Your task to perform on an android device: open app "Instagram" (install if not already installed) and go to login screen Image 0: 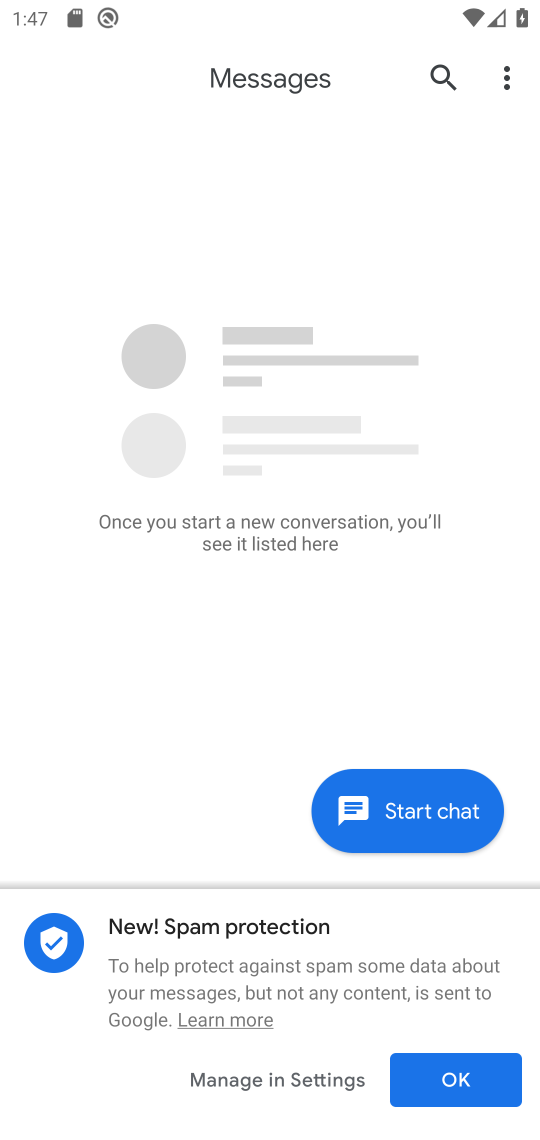
Step 0: press home button
Your task to perform on an android device: open app "Instagram" (install if not already installed) and go to login screen Image 1: 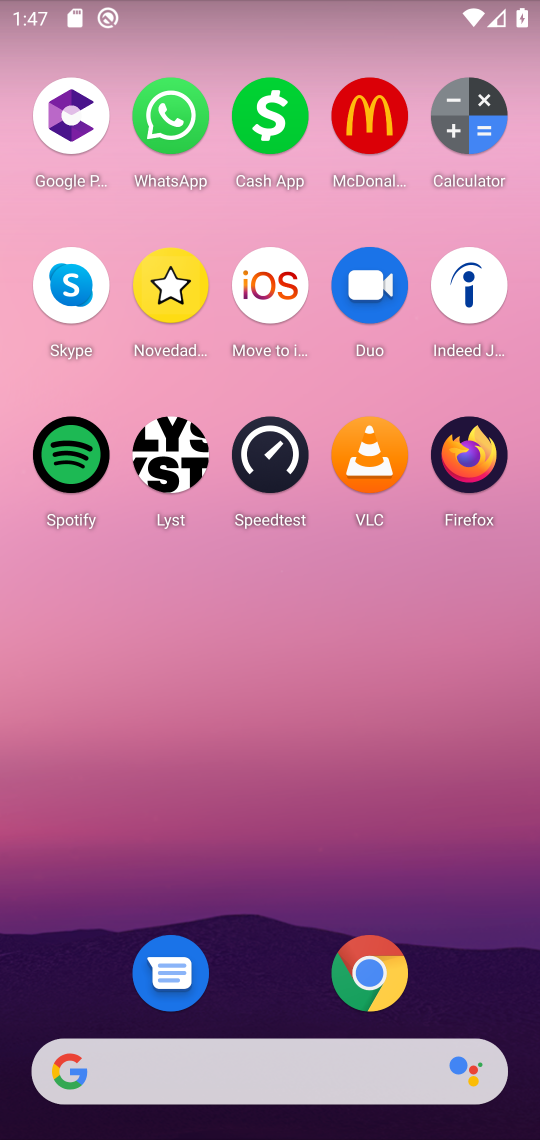
Step 1: drag from (298, 999) to (374, 186)
Your task to perform on an android device: open app "Instagram" (install if not already installed) and go to login screen Image 2: 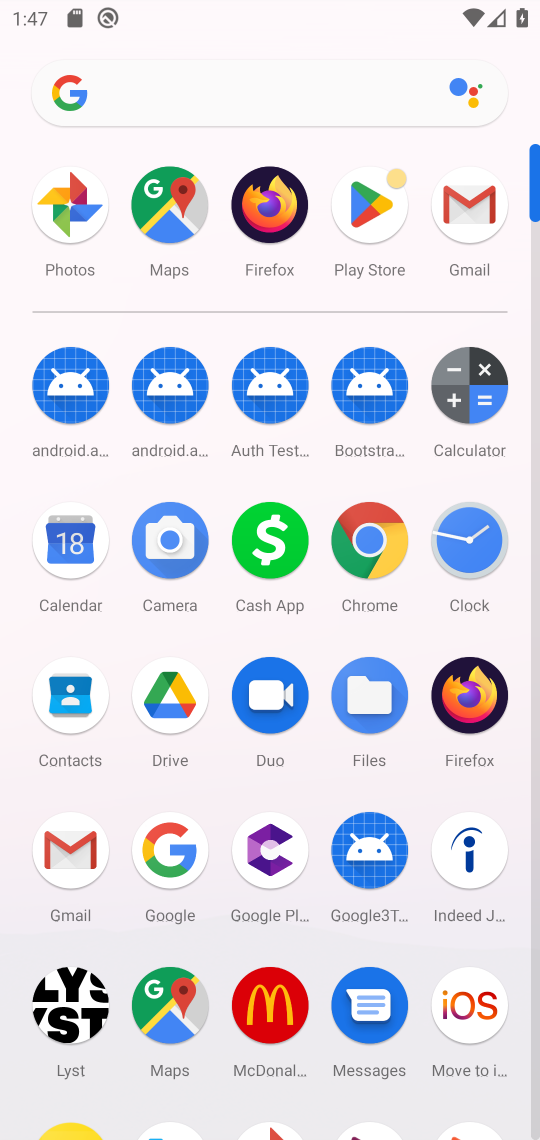
Step 2: click (371, 227)
Your task to perform on an android device: open app "Instagram" (install if not already installed) and go to login screen Image 3: 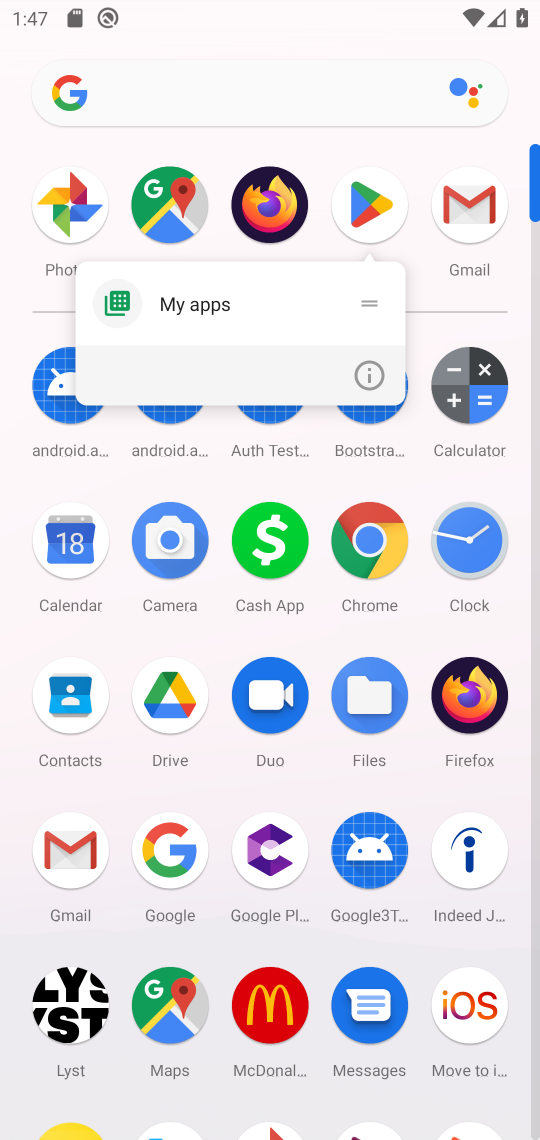
Step 3: click (363, 216)
Your task to perform on an android device: open app "Instagram" (install if not already installed) and go to login screen Image 4: 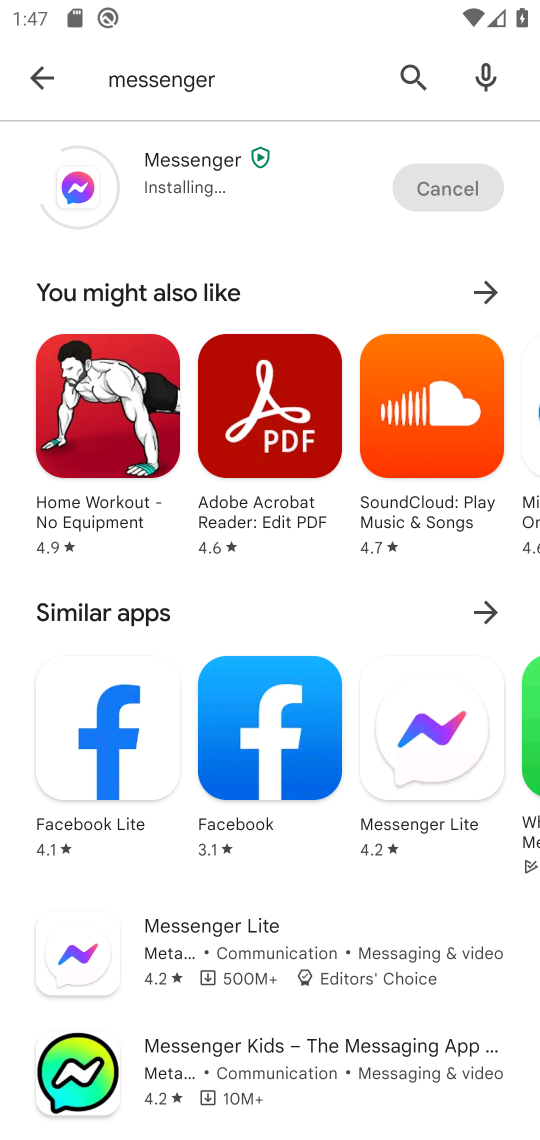
Step 4: click (407, 84)
Your task to perform on an android device: open app "Instagram" (install if not already installed) and go to login screen Image 5: 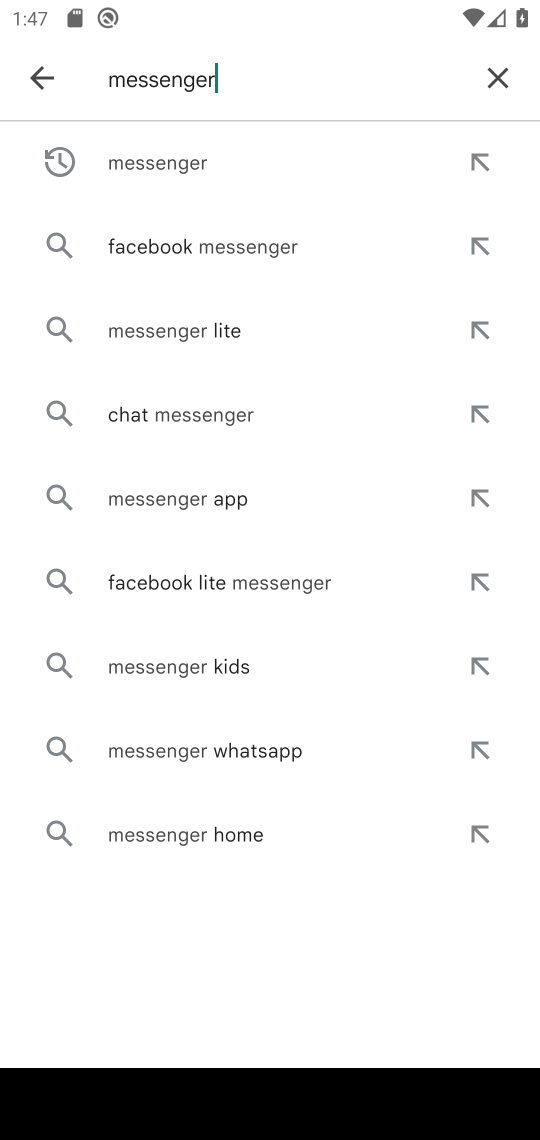
Step 5: click (487, 84)
Your task to perform on an android device: open app "Instagram" (install if not already installed) and go to login screen Image 6: 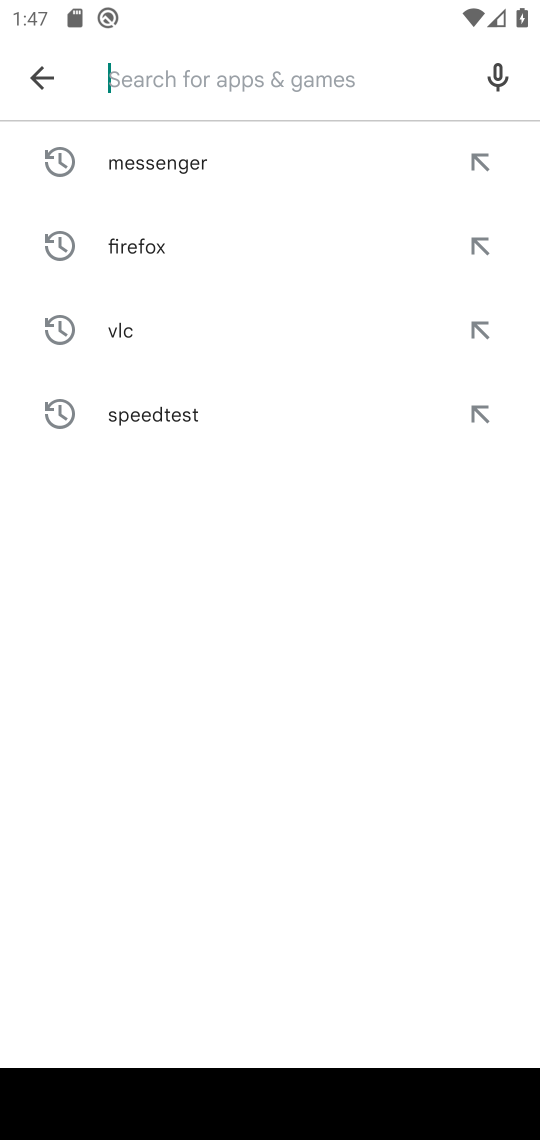
Step 6: type "instagram"
Your task to perform on an android device: open app "Instagram" (install if not already installed) and go to login screen Image 7: 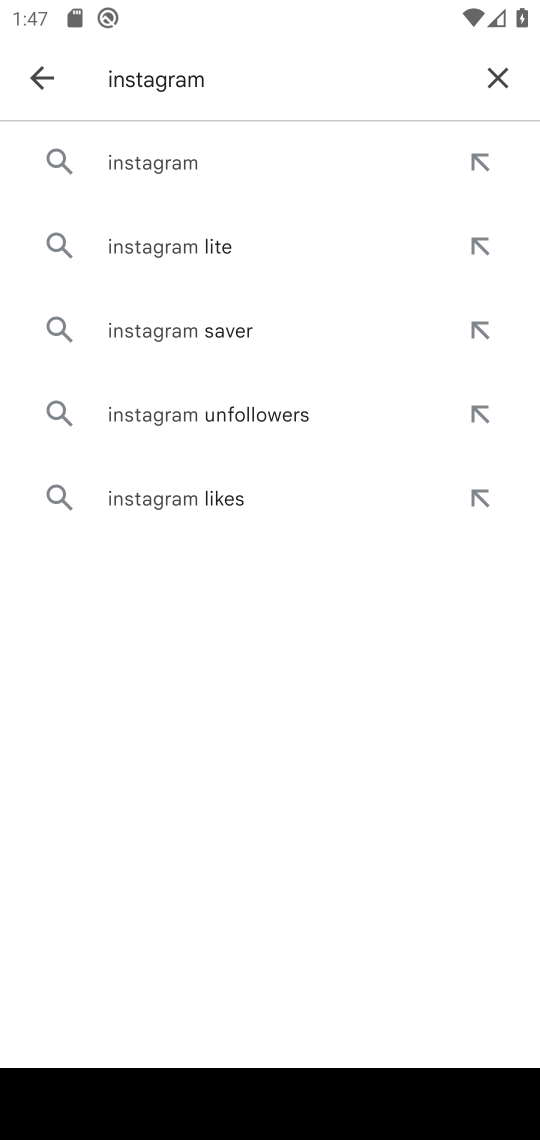
Step 7: click (271, 168)
Your task to perform on an android device: open app "Instagram" (install if not already installed) and go to login screen Image 8: 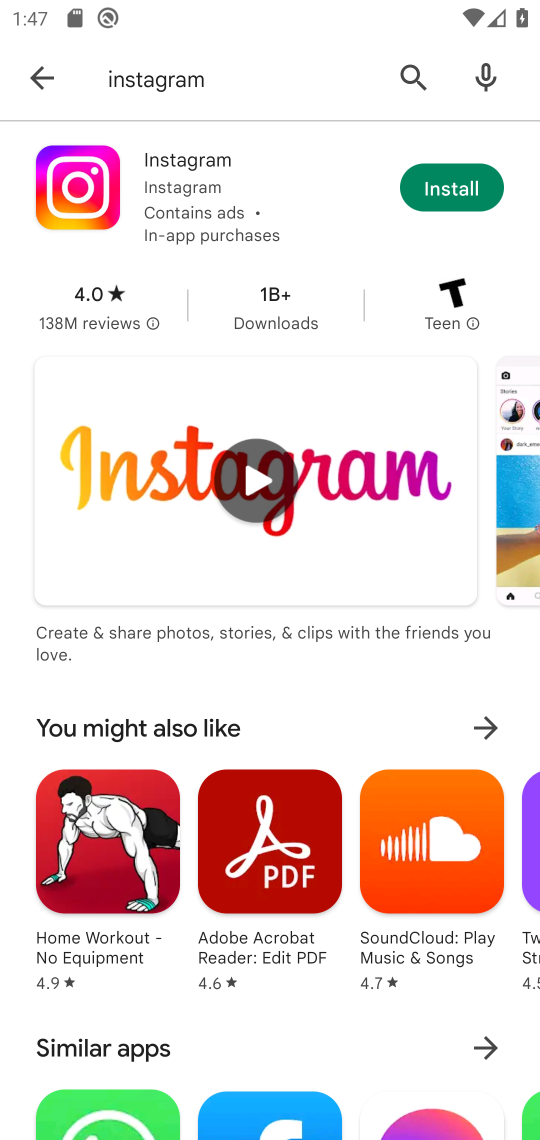
Step 8: click (475, 182)
Your task to perform on an android device: open app "Instagram" (install if not already installed) and go to login screen Image 9: 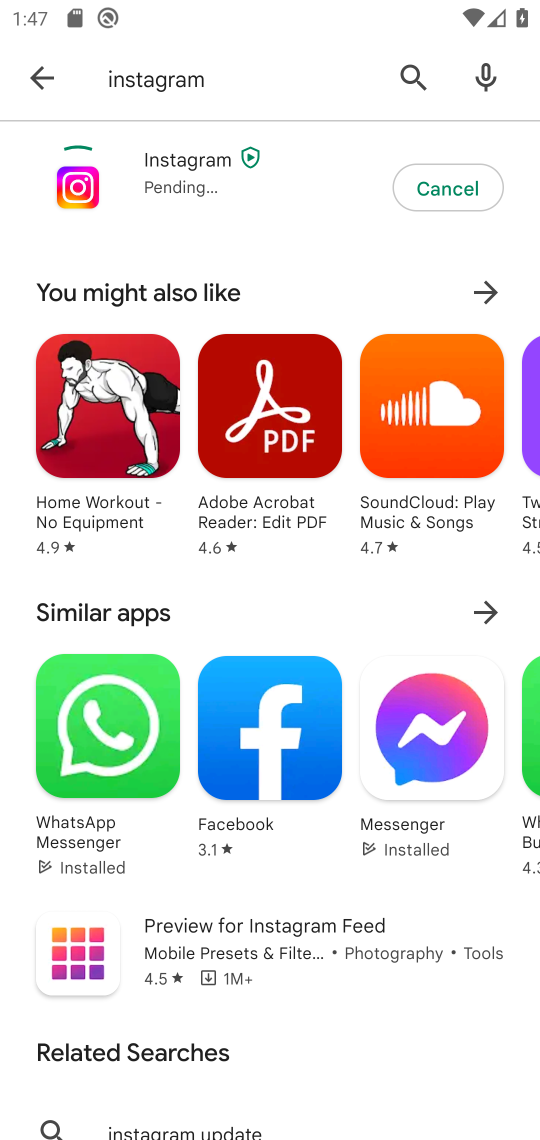
Step 9: task complete